Your task to perform on an android device: check battery use Image 0: 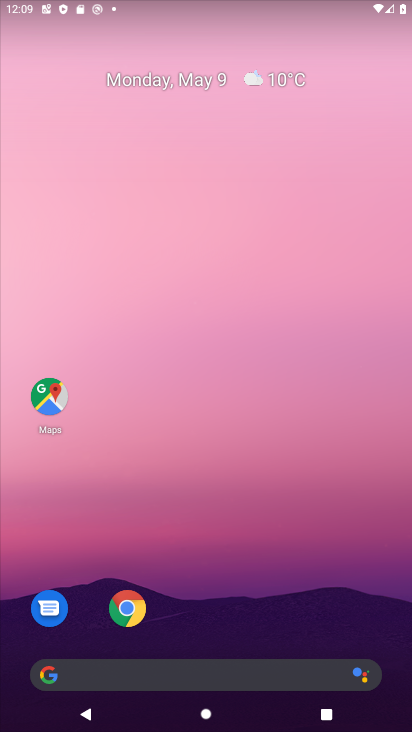
Step 0: drag from (281, 609) to (304, 169)
Your task to perform on an android device: check battery use Image 1: 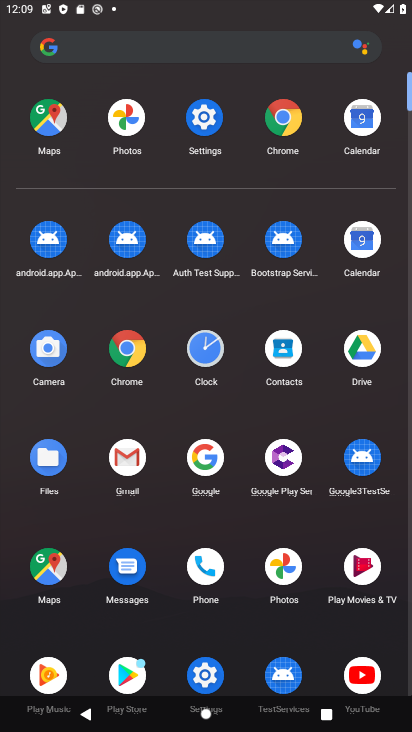
Step 1: click (206, 156)
Your task to perform on an android device: check battery use Image 2: 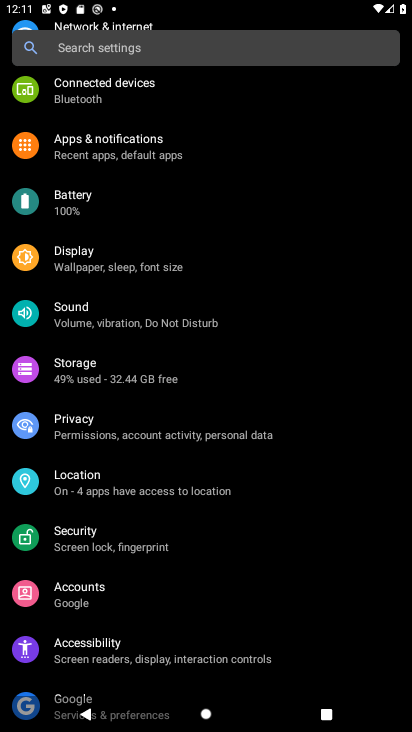
Step 2: click (110, 197)
Your task to perform on an android device: check battery use Image 3: 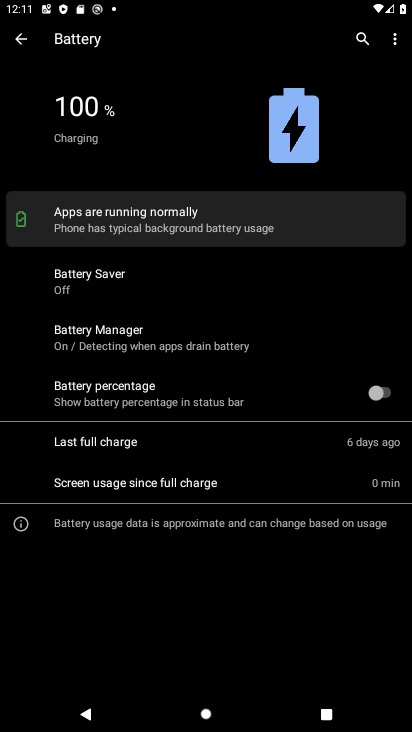
Step 3: task complete